Your task to perform on an android device: show emergency info Image 0: 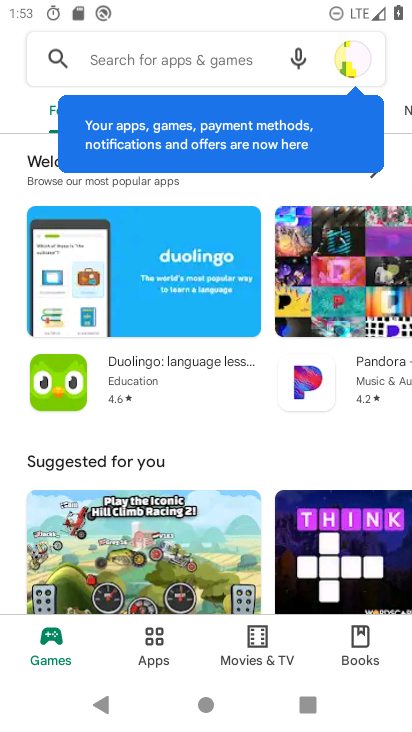
Step 0: press home button
Your task to perform on an android device: show emergency info Image 1: 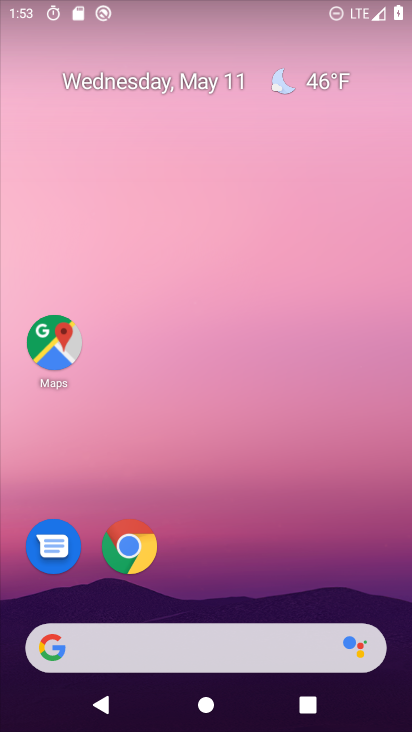
Step 1: drag from (271, 479) to (236, 191)
Your task to perform on an android device: show emergency info Image 2: 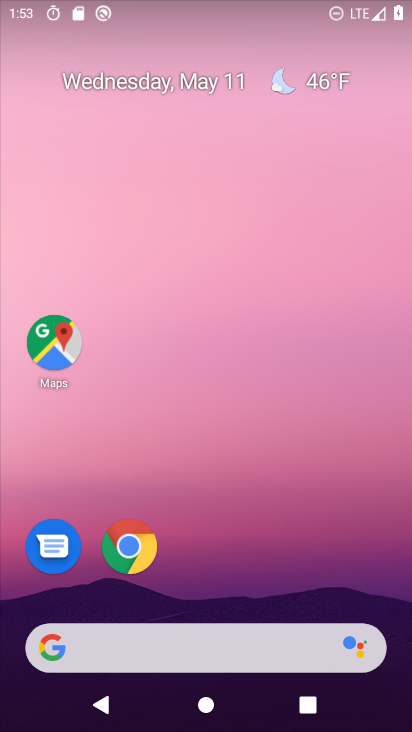
Step 2: drag from (266, 670) to (201, 162)
Your task to perform on an android device: show emergency info Image 3: 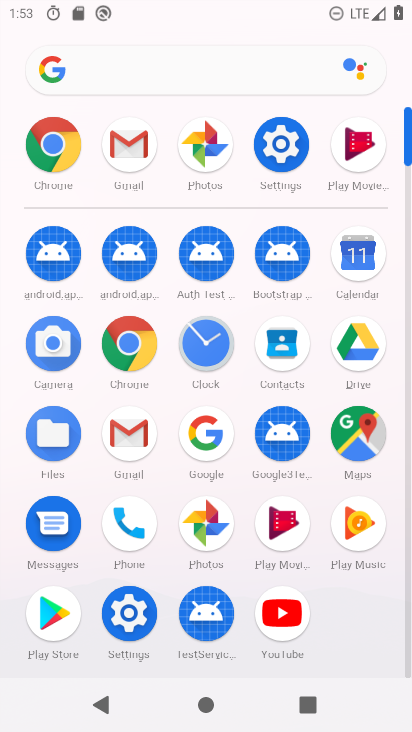
Step 3: click (274, 136)
Your task to perform on an android device: show emergency info Image 4: 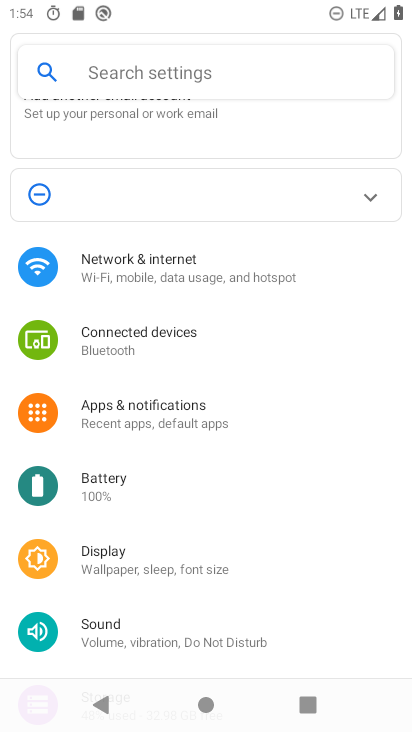
Step 4: click (152, 75)
Your task to perform on an android device: show emergency info Image 5: 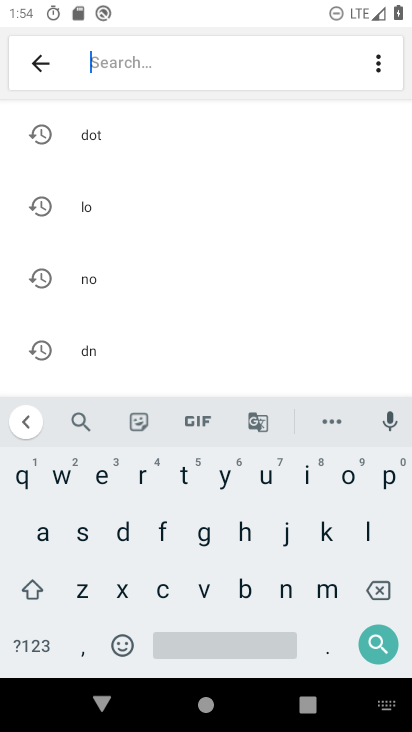
Step 5: click (101, 474)
Your task to perform on an android device: show emergency info Image 6: 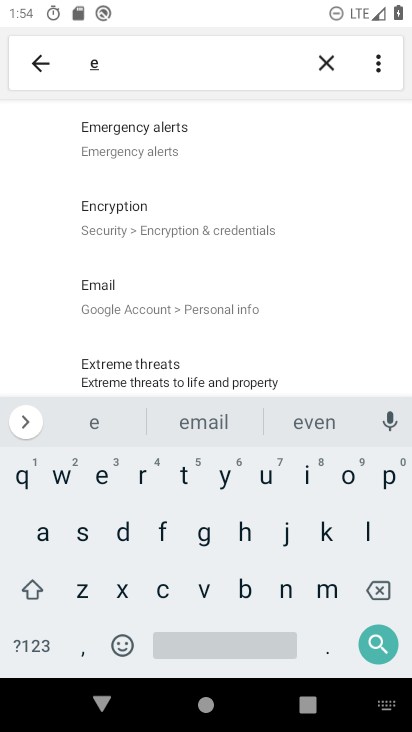
Step 6: click (319, 584)
Your task to perform on an android device: show emergency info Image 7: 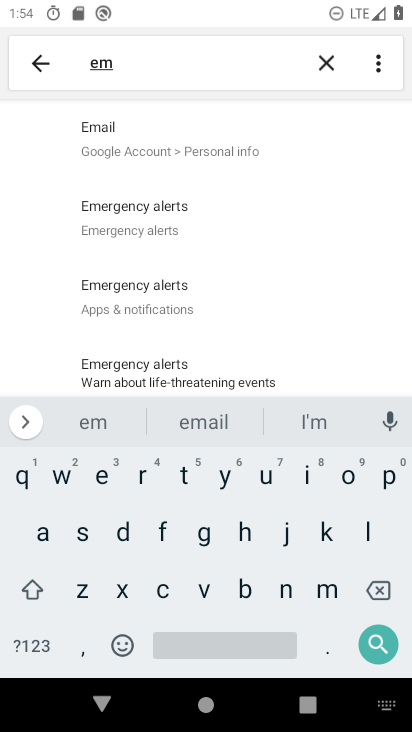
Step 7: click (99, 477)
Your task to perform on an android device: show emergency info Image 8: 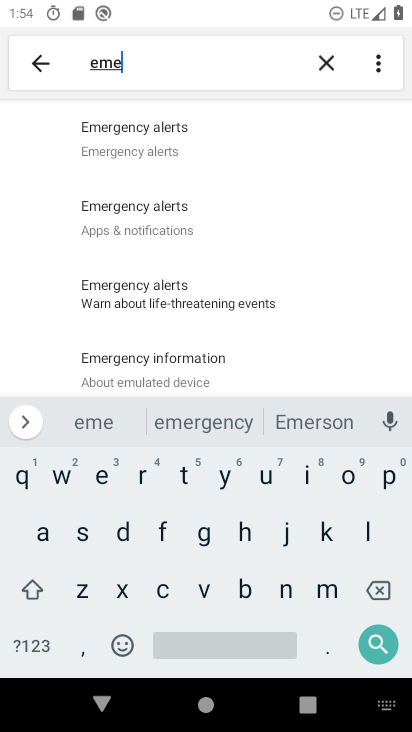
Step 8: click (179, 424)
Your task to perform on an android device: show emergency info Image 9: 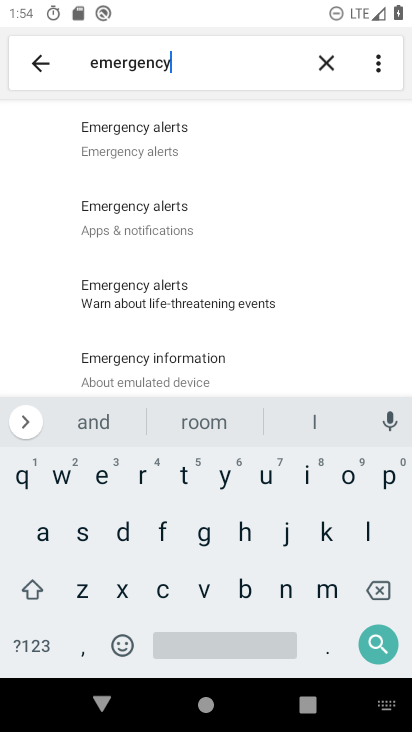
Step 9: click (305, 478)
Your task to perform on an android device: show emergency info Image 10: 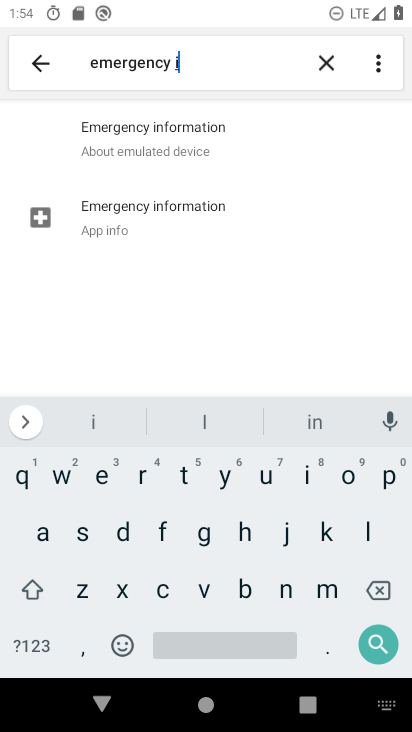
Step 10: click (203, 129)
Your task to perform on an android device: show emergency info Image 11: 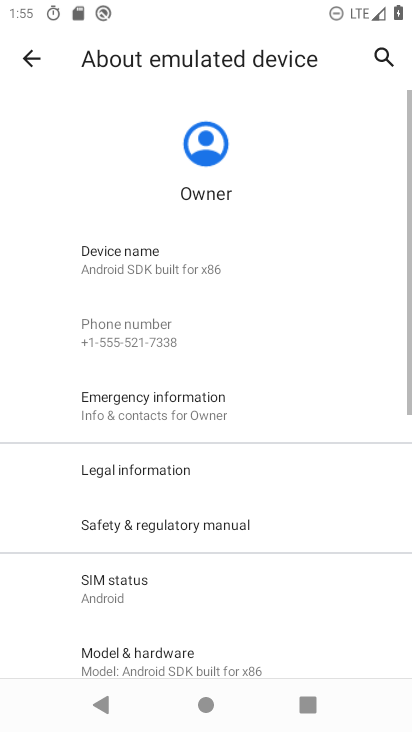
Step 11: click (155, 383)
Your task to perform on an android device: show emergency info Image 12: 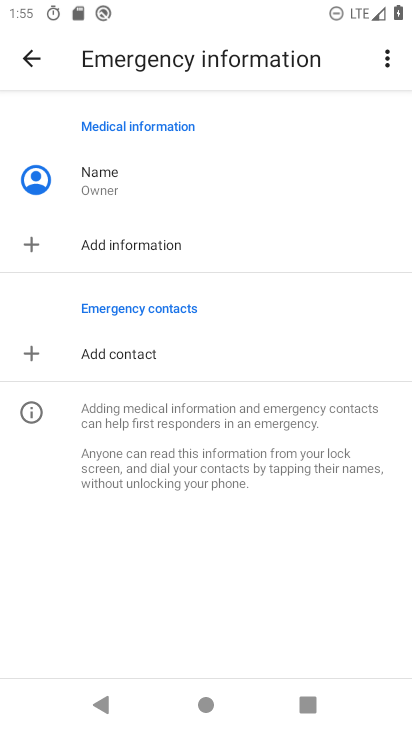
Step 12: task complete